Your task to perform on an android device: turn off javascript in the chrome app Image 0: 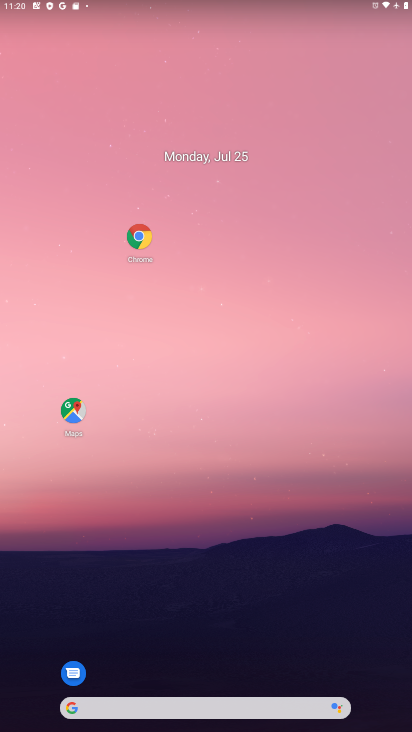
Step 0: click (135, 248)
Your task to perform on an android device: turn off javascript in the chrome app Image 1: 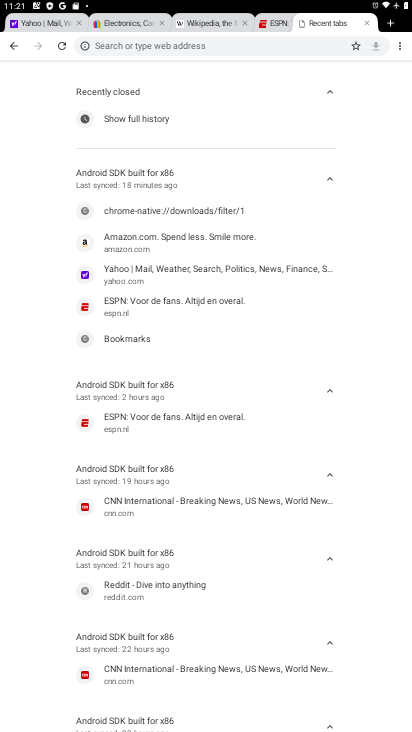
Step 1: click (404, 37)
Your task to perform on an android device: turn off javascript in the chrome app Image 2: 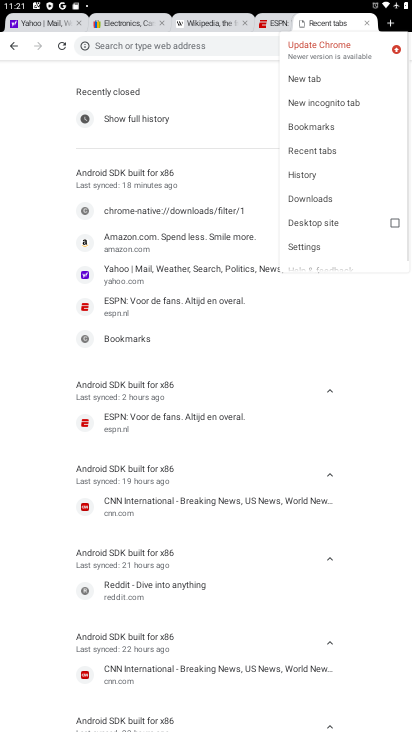
Step 2: click (342, 242)
Your task to perform on an android device: turn off javascript in the chrome app Image 3: 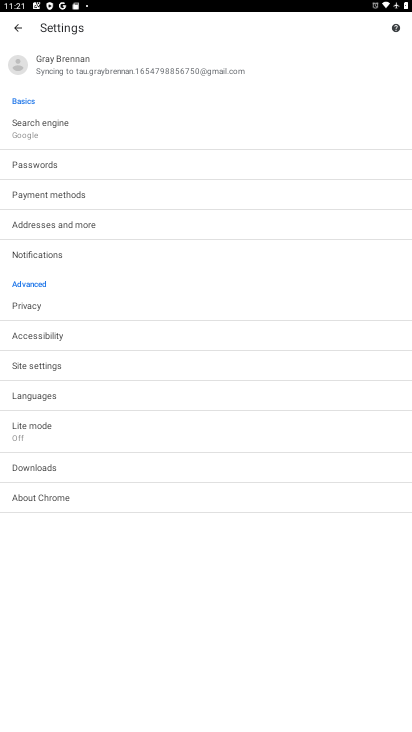
Step 3: click (130, 367)
Your task to perform on an android device: turn off javascript in the chrome app Image 4: 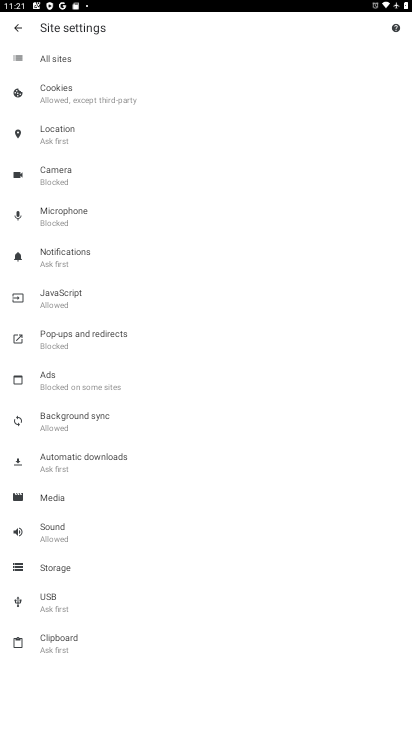
Step 4: click (118, 309)
Your task to perform on an android device: turn off javascript in the chrome app Image 5: 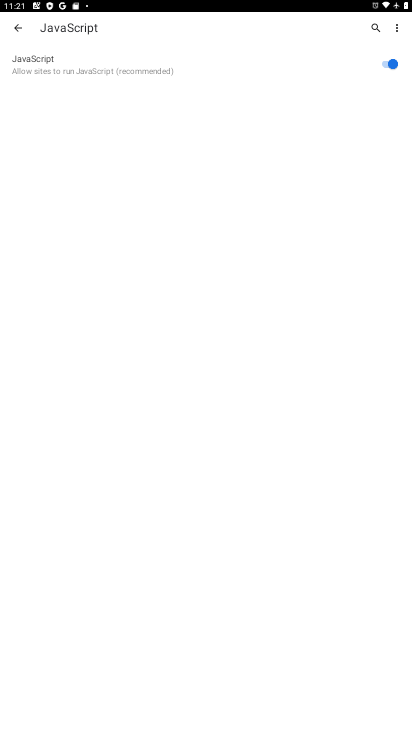
Step 5: click (384, 80)
Your task to perform on an android device: turn off javascript in the chrome app Image 6: 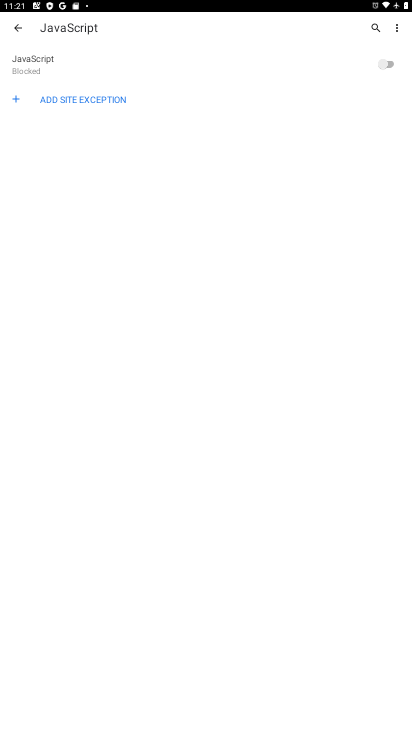
Step 6: task complete